Your task to perform on an android device: Open the calendar app, open the side menu, and click the "Day" option Image 0: 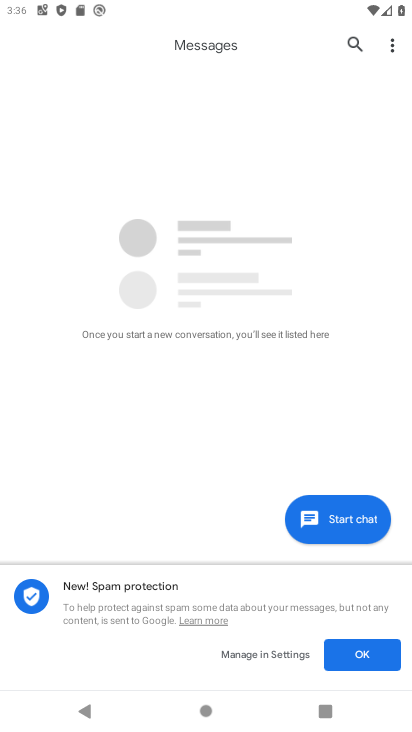
Step 0: click (258, 455)
Your task to perform on an android device: Open the calendar app, open the side menu, and click the "Day" option Image 1: 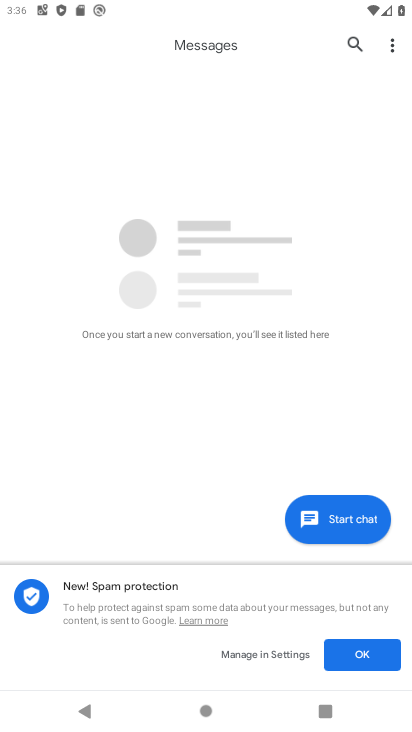
Step 1: press home button
Your task to perform on an android device: Open the calendar app, open the side menu, and click the "Day" option Image 2: 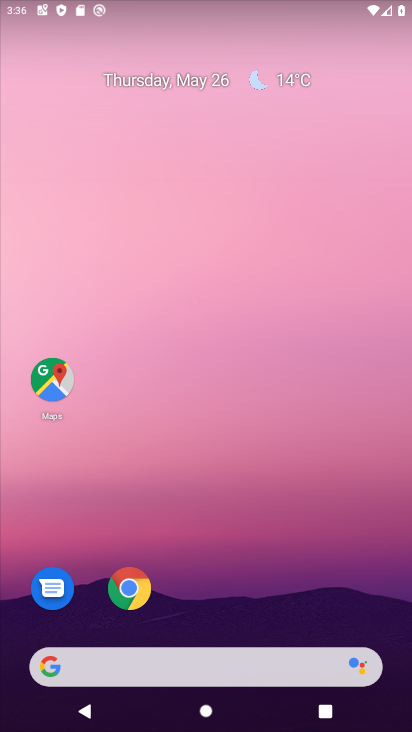
Step 2: drag from (238, 559) to (277, 48)
Your task to perform on an android device: Open the calendar app, open the side menu, and click the "Day" option Image 3: 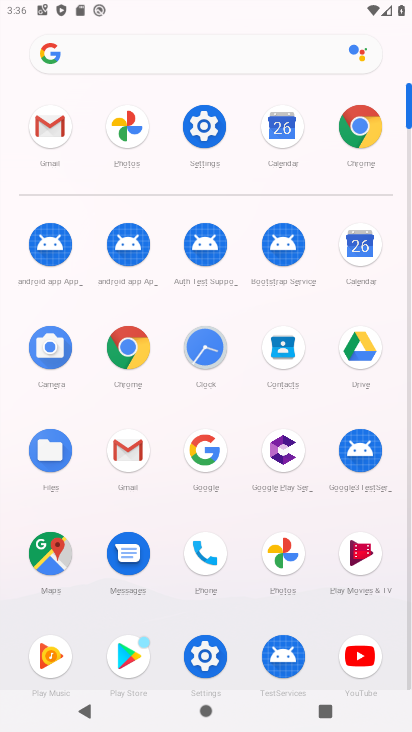
Step 3: click (353, 261)
Your task to perform on an android device: Open the calendar app, open the side menu, and click the "Day" option Image 4: 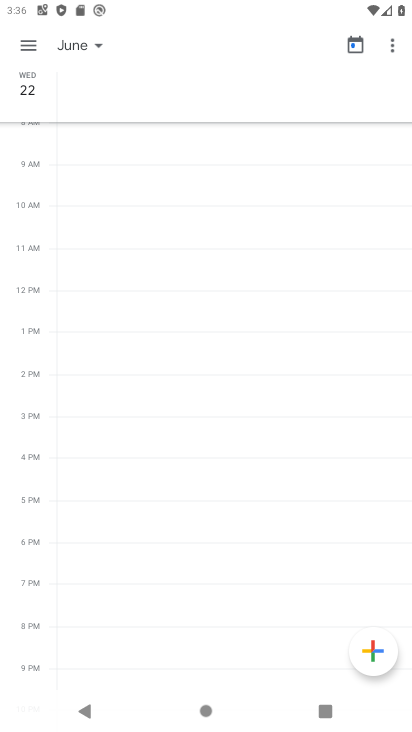
Step 4: click (32, 58)
Your task to perform on an android device: Open the calendar app, open the side menu, and click the "Day" option Image 5: 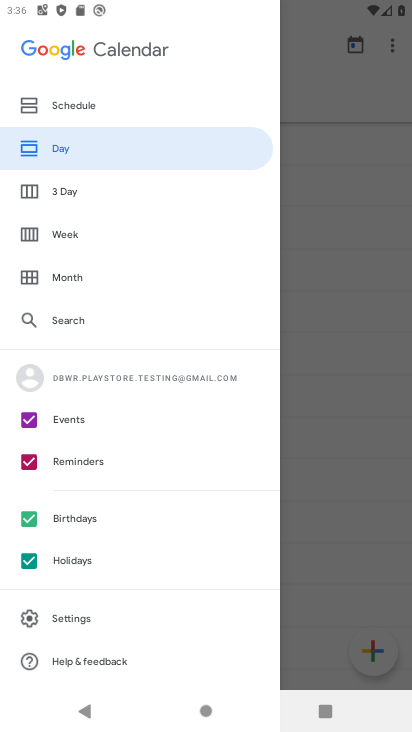
Step 5: click (66, 153)
Your task to perform on an android device: Open the calendar app, open the side menu, and click the "Day" option Image 6: 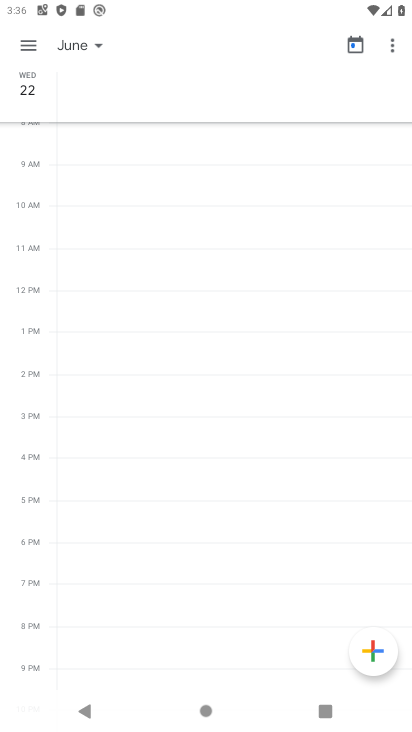
Step 6: task complete